Your task to perform on an android device: toggle airplane mode Image 0: 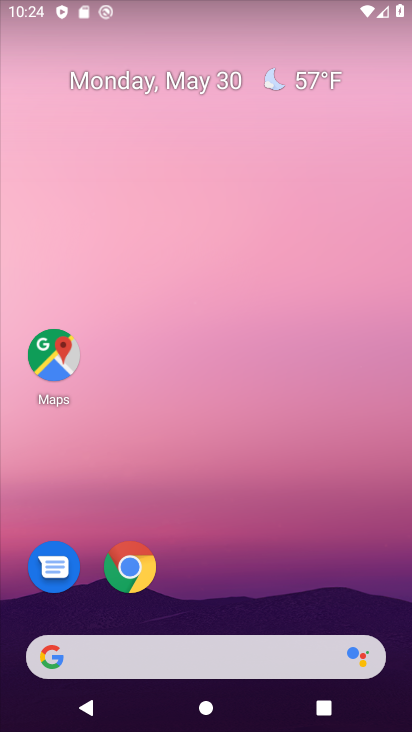
Step 0: drag from (228, 620) to (205, 175)
Your task to perform on an android device: toggle airplane mode Image 1: 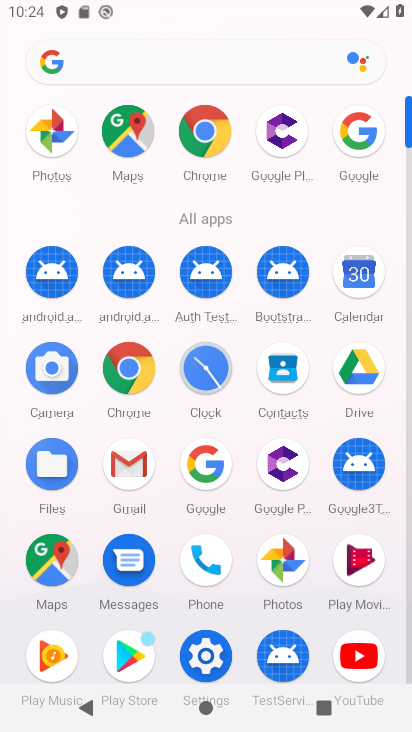
Step 1: click (191, 668)
Your task to perform on an android device: toggle airplane mode Image 2: 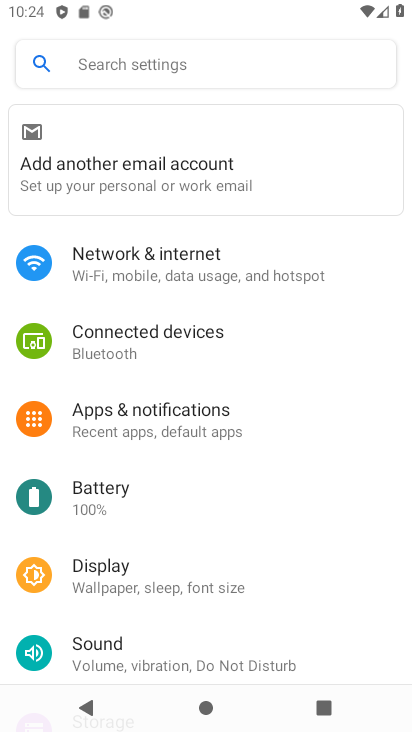
Step 2: click (122, 250)
Your task to perform on an android device: toggle airplane mode Image 3: 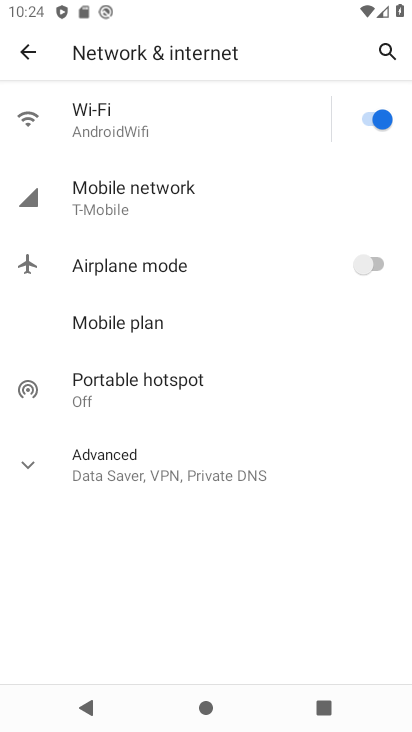
Step 3: click (381, 252)
Your task to perform on an android device: toggle airplane mode Image 4: 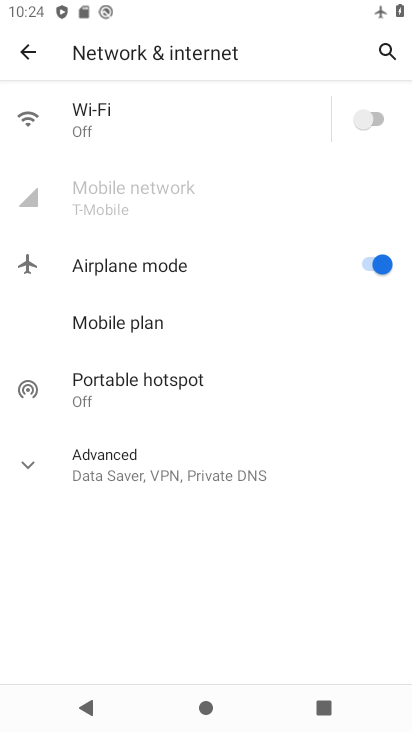
Step 4: task complete